Your task to perform on an android device: turn pop-ups off in chrome Image 0: 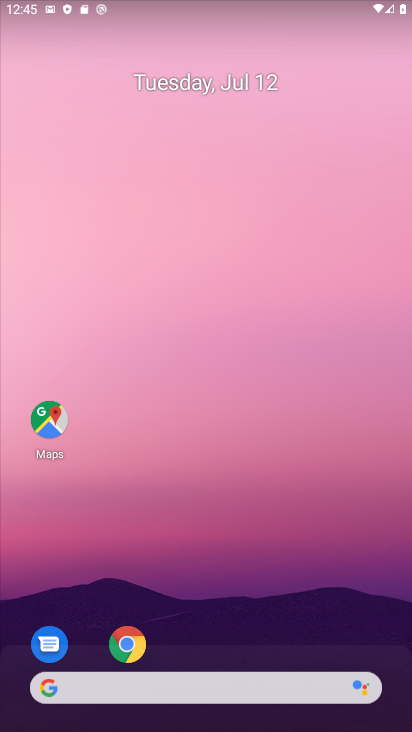
Step 0: drag from (203, 689) to (321, 123)
Your task to perform on an android device: turn pop-ups off in chrome Image 1: 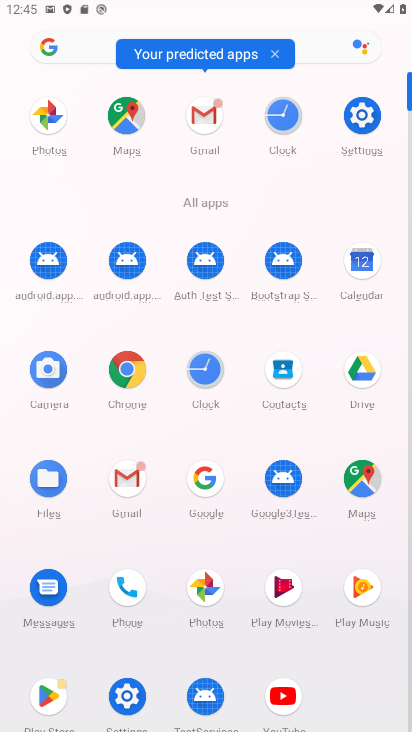
Step 1: click (129, 391)
Your task to perform on an android device: turn pop-ups off in chrome Image 2: 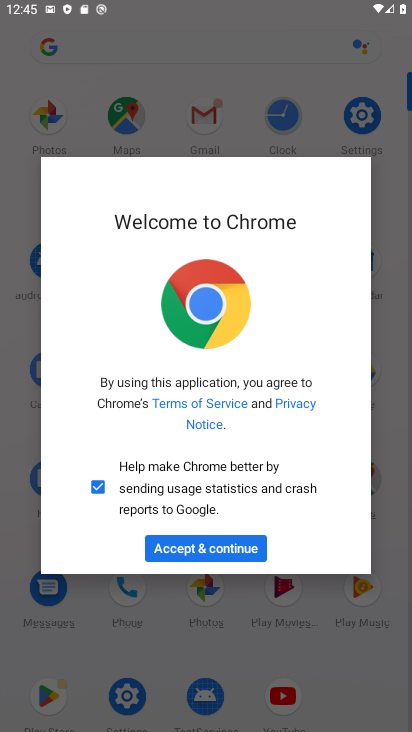
Step 2: click (227, 554)
Your task to perform on an android device: turn pop-ups off in chrome Image 3: 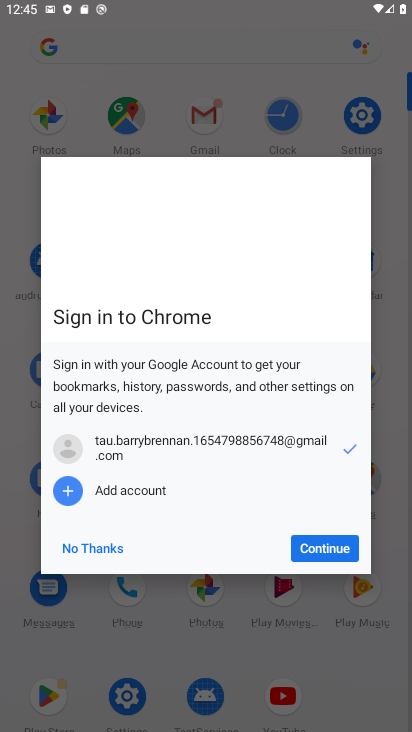
Step 3: click (320, 536)
Your task to perform on an android device: turn pop-ups off in chrome Image 4: 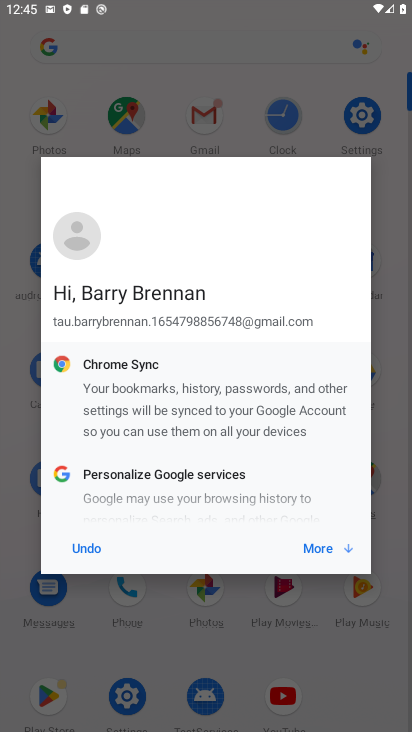
Step 4: click (330, 547)
Your task to perform on an android device: turn pop-ups off in chrome Image 5: 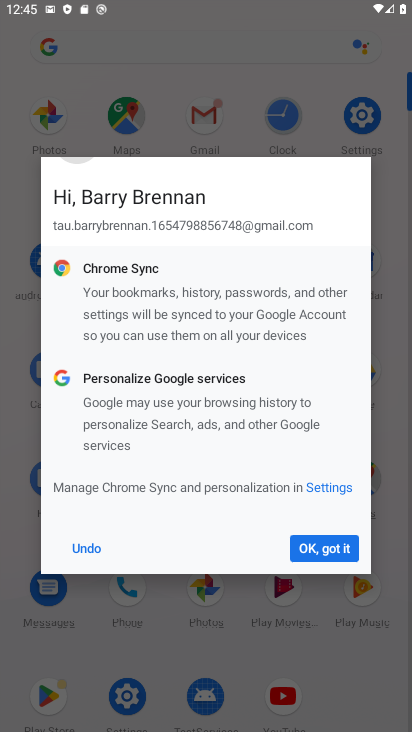
Step 5: click (330, 547)
Your task to perform on an android device: turn pop-ups off in chrome Image 6: 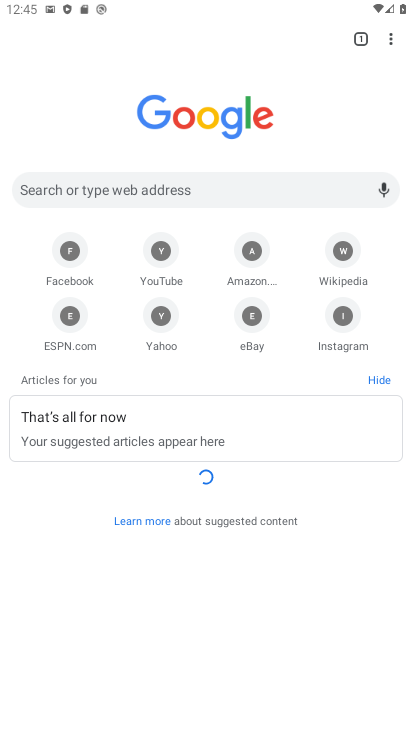
Step 6: click (388, 32)
Your task to perform on an android device: turn pop-ups off in chrome Image 7: 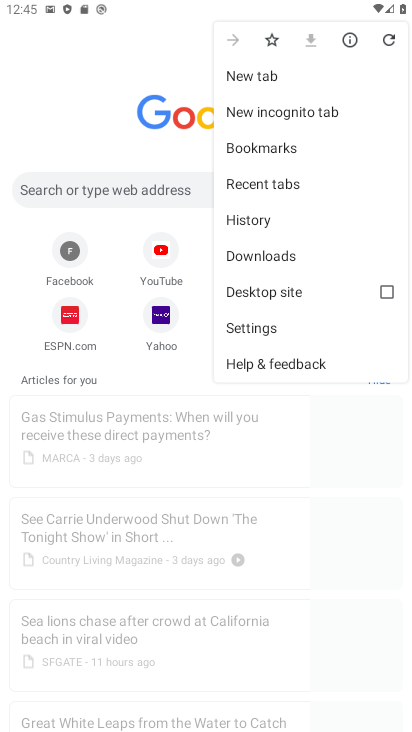
Step 7: click (295, 327)
Your task to perform on an android device: turn pop-ups off in chrome Image 8: 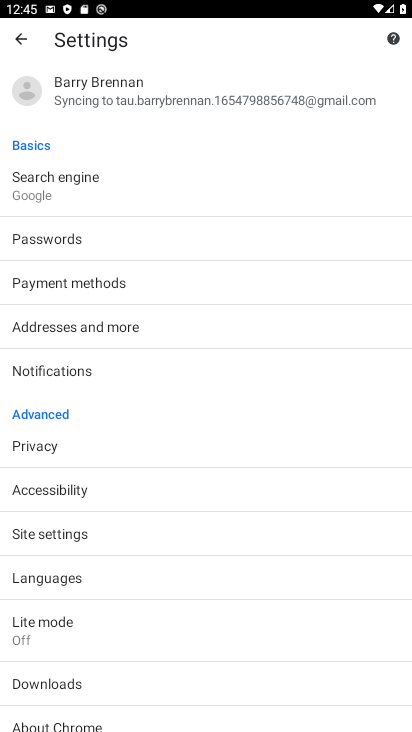
Step 8: click (153, 534)
Your task to perform on an android device: turn pop-ups off in chrome Image 9: 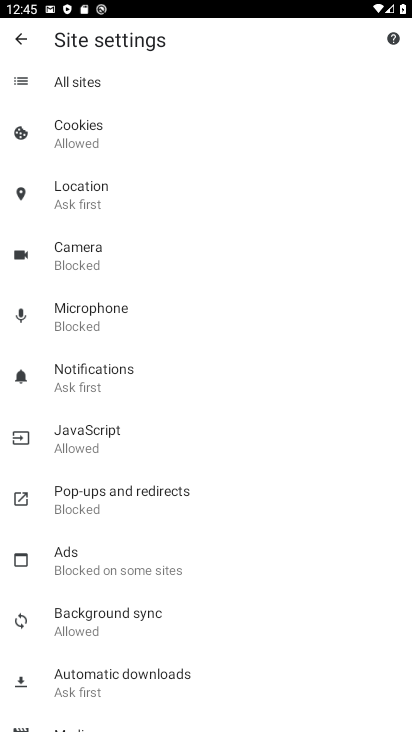
Step 9: click (176, 511)
Your task to perform on an android device: turn pop-ups off in chrome Image 10: 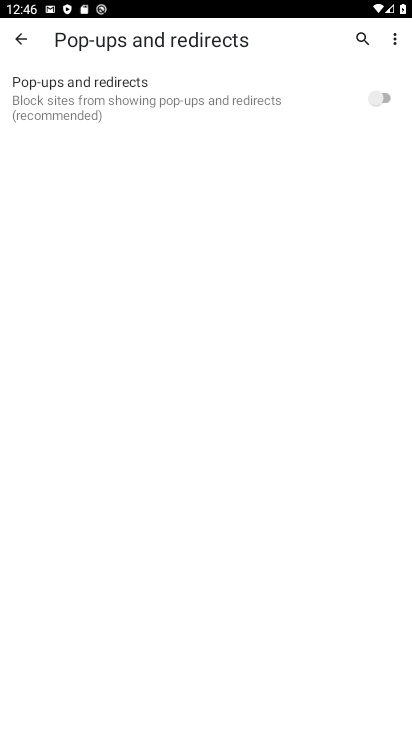
Step 10: task complete